Your task to perform on an android device: Open the web browser Image 0: 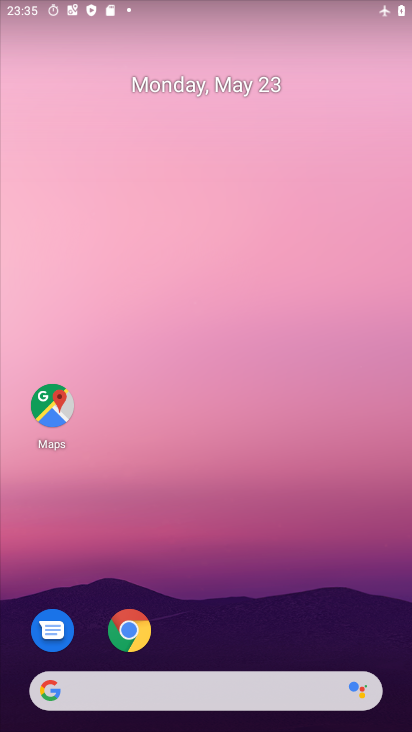
Step 0: click (131, 633)
Your task to perform on an android device: Open the web browser Image 1: 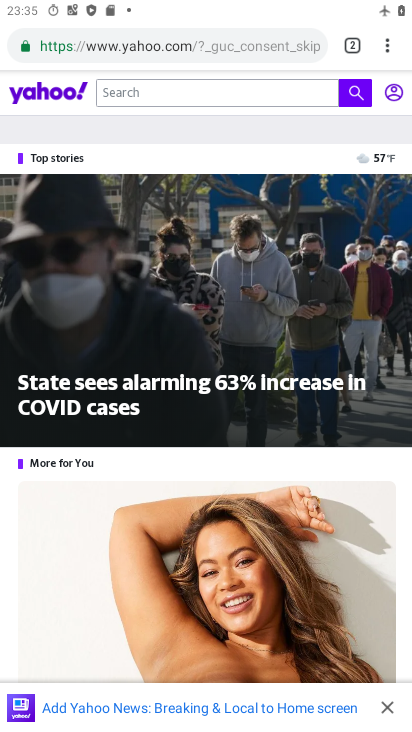
Step 1: task complete